Your task to perform on an android device: Search for Italian restaurants on Maps Image 0: 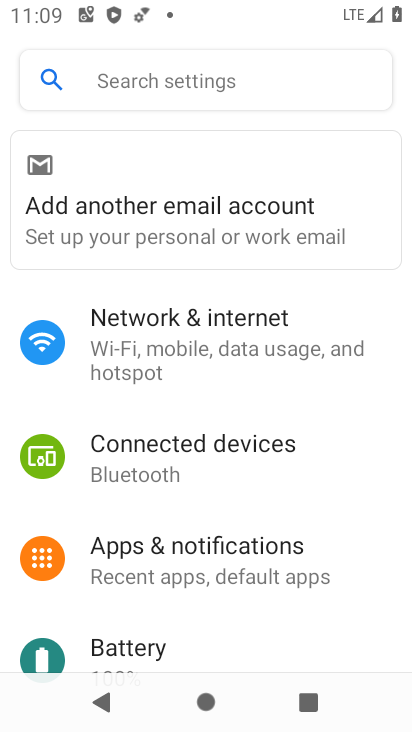
Step 0: press home button
Your task to perform on an android device: Search for Italian restaurants on Maps Image 1: 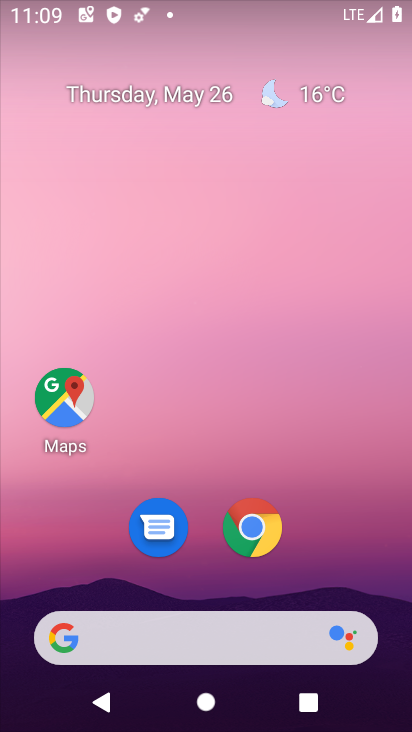
Step 1: click (50, 402)
Your task to perform on an android device: Search for Italian restaurants on Maps Image 2: 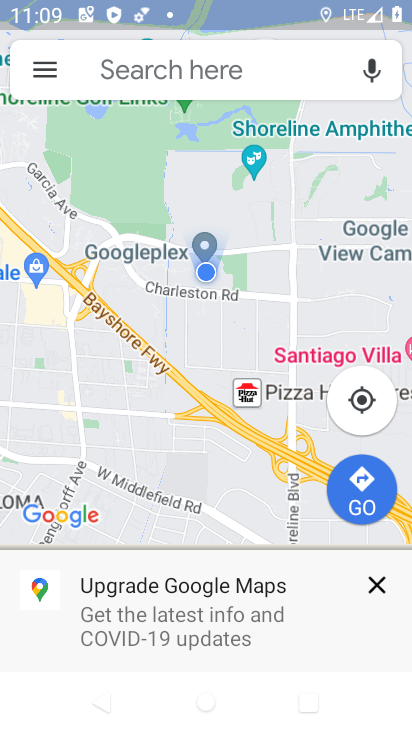
Step 2: click (182, 58)
Your task to perform on an android device: Search for Italian restaurants on Maps Image 3: 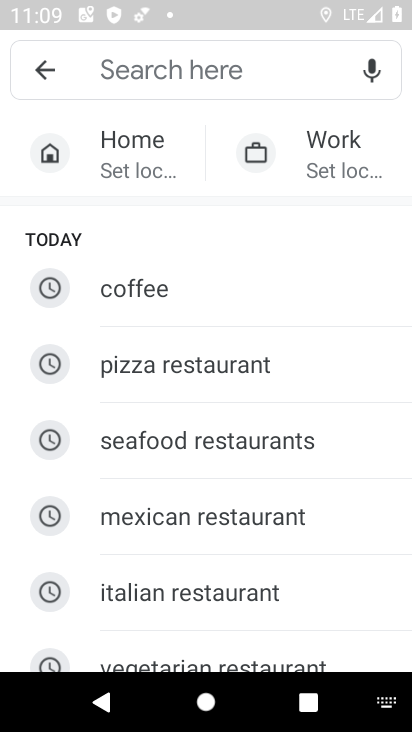
Step 3: type "italian restaurants"
Your task to perform on an android device: Search for Italian restaurants on Maps Image 4: 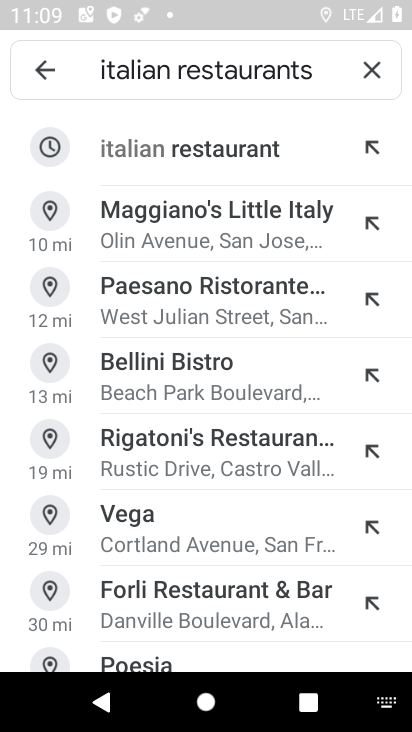
Step 4: click (206, 154)
Your task to perform on an android device: Search for Italian restaurants on Maps Image 5: 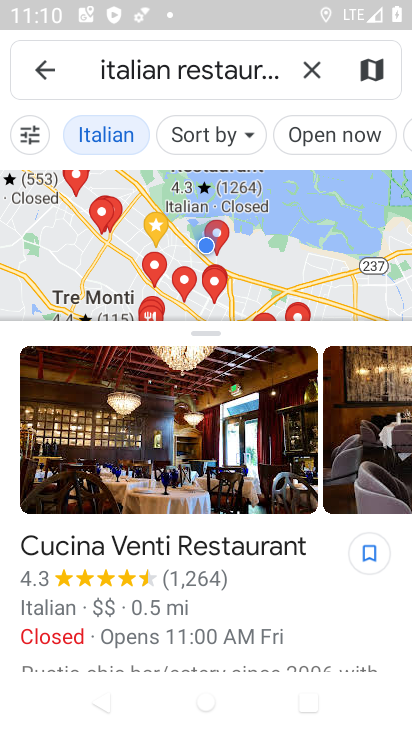
Step 5: task complete